Your task to perform on an android device: Go to CNN.com Image 0: 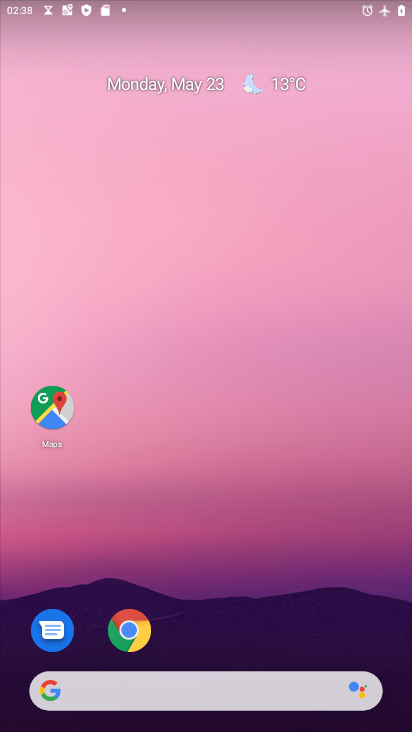
Step 0: click (135, 631)
Your task to perform on an android device: Go to CNN.com Image 1: 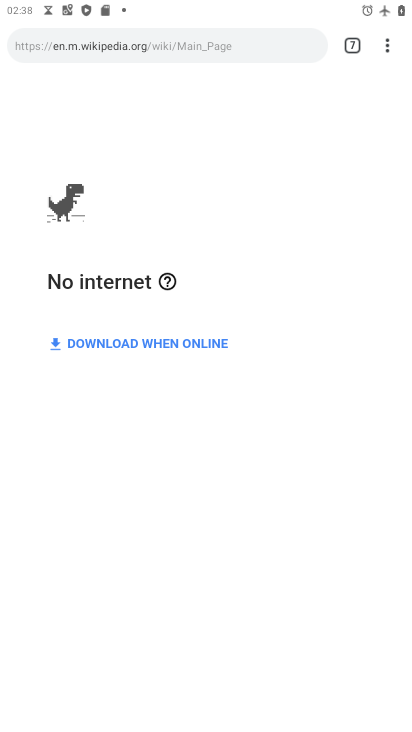
Step 1: click (344, 47)
Your task to perform on an android device: Go to CNN.com Image 2: 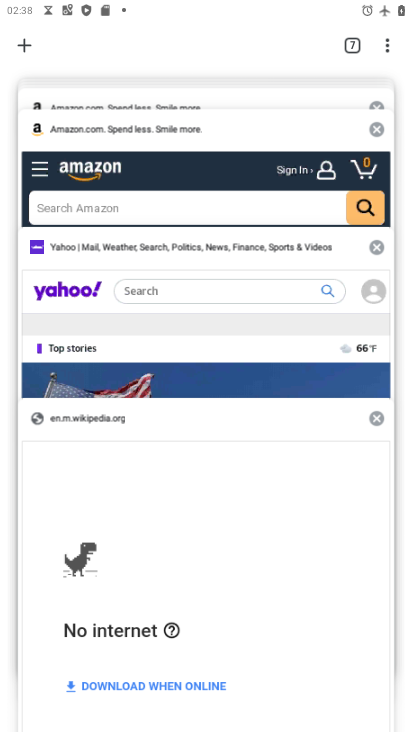
Step 2: click (30, 45)
Your task to perform on an android device: Go to CNN.com Image 3: 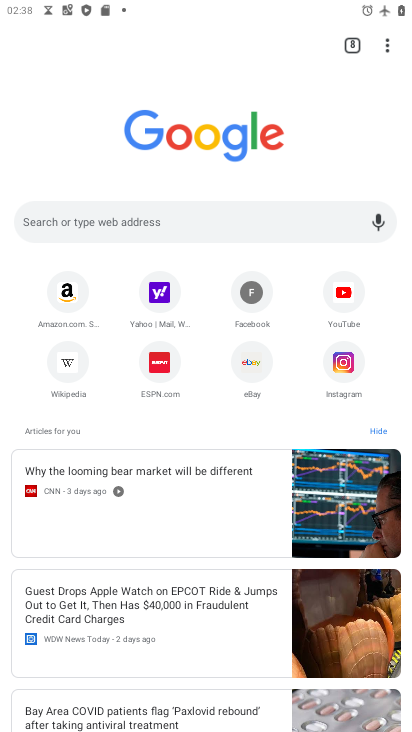
Step 3: click (224, 210)
Your task to perform on an android device: Go to CNN.com Image 4: 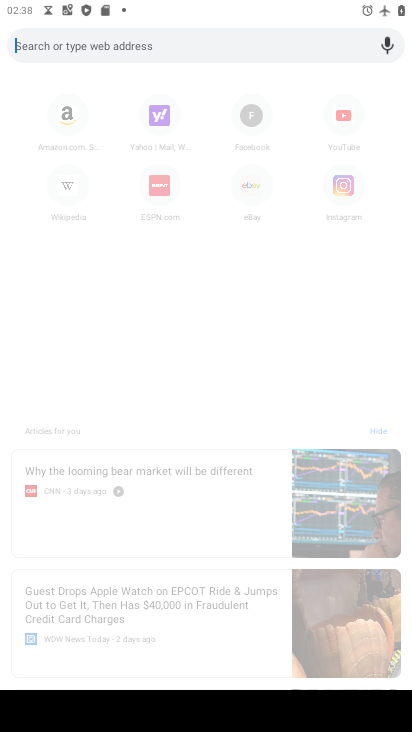
Step 4: type "CNN.com"
Your task to perform on an android device: Go to CNN.com Image 5: 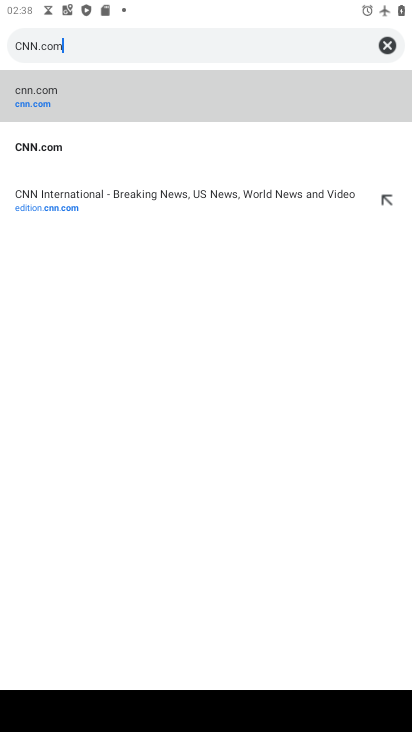
Step 5: click (149, 115)
Your task to perform on an android device: Go to CNN.com Image 6: 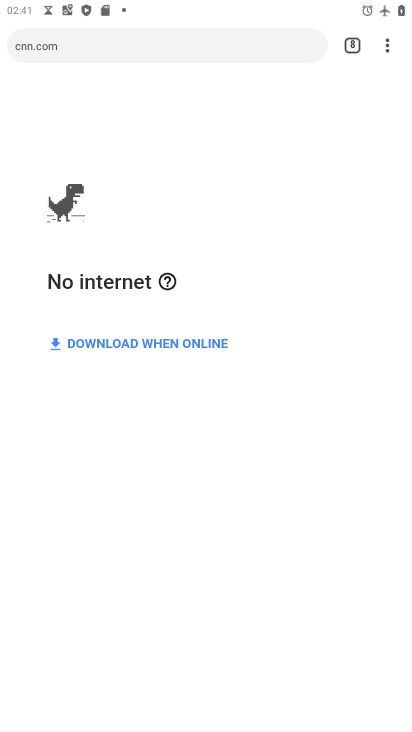
Step 6: task complete